Your task to perform on an android device: change timer sound Image 0: 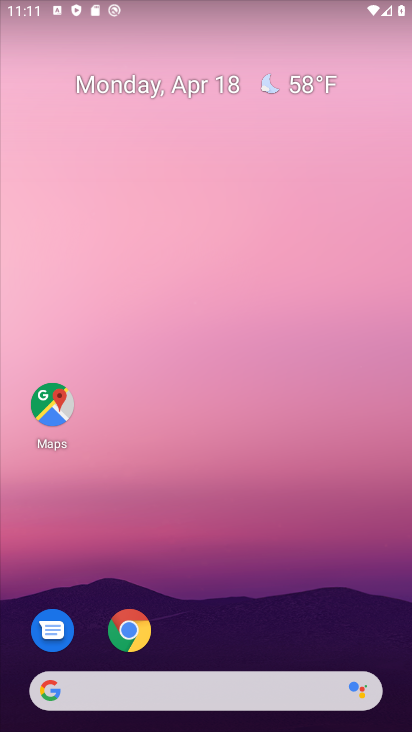
Step 0: click (285, 151)
Your task to perform on an android device: change timer sound Image 1: 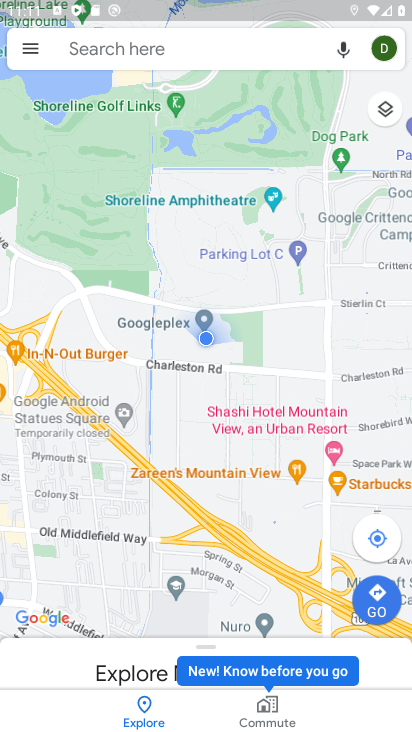
Step 1: press home button
Your task to perform on an android device: change timer sound Image 2: 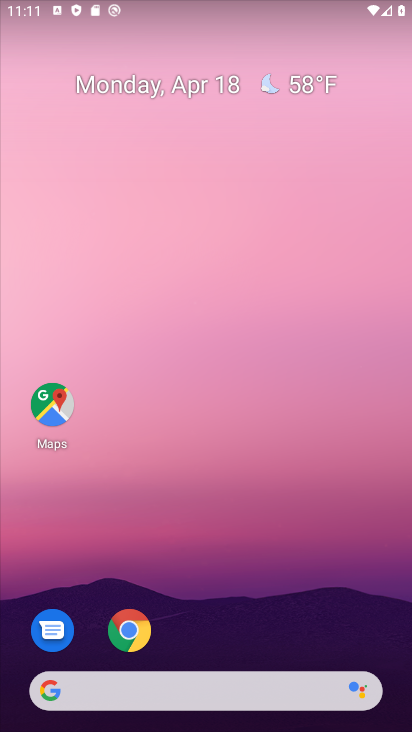
Step 2: drag from (272, 635) to (272, 252)
Your task to perform on an android device: change timer sound Image 3: 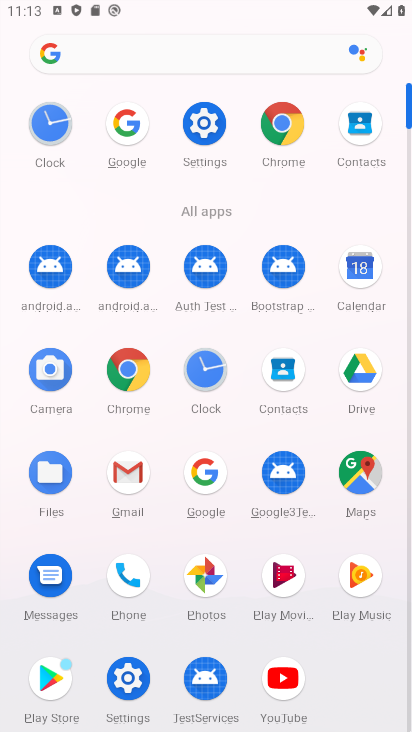
Step 3: click (203, 366)
Your task to perform on an android device: change timer sound Image 4: 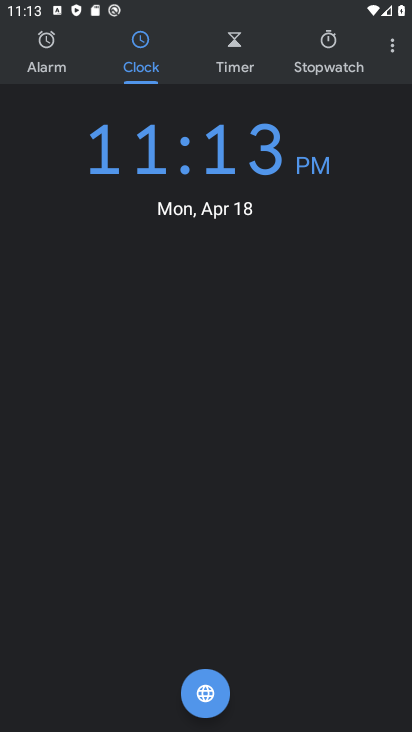
Step 4: click (385, 51)
Your task to perform on an android device: change timer sound Image 5: 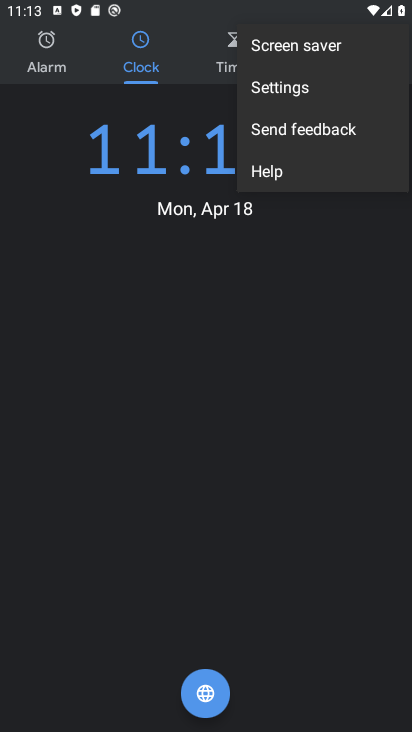
Step 5: click (309, 78)
Your task to perform on an android device: change timer sound Image 6: 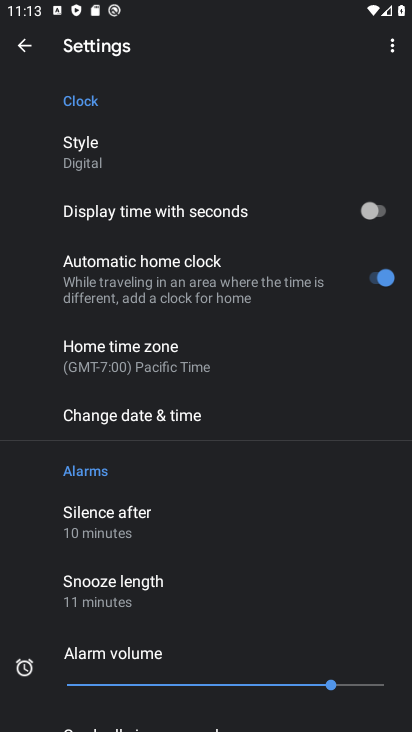
Step 6: drag from (190, 590) to (189, 218)
Your task to perform on an android device: change timer sound Image 7: 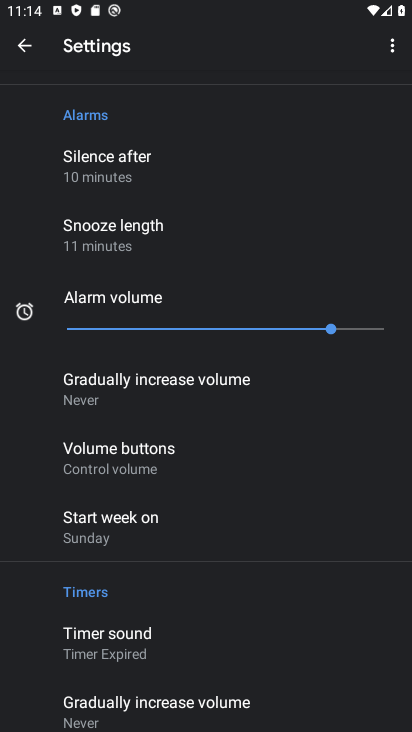
Step 7: click (202, 228)
Your task to perform on an android device: change timer sound Image 8: 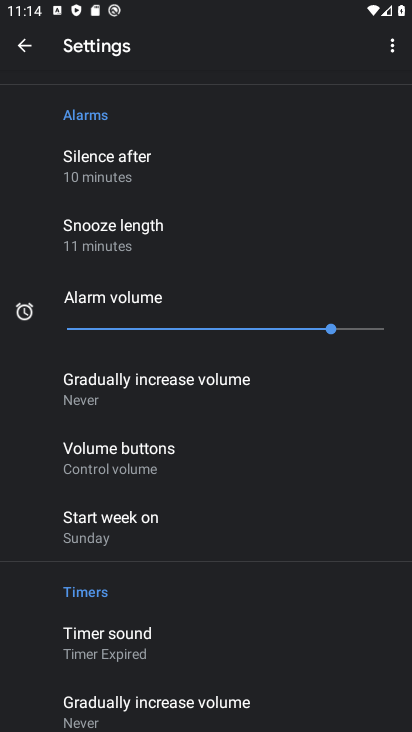
Step 8: click (146, 646)
Your task to perform on an android device: change timer sound Image 9: 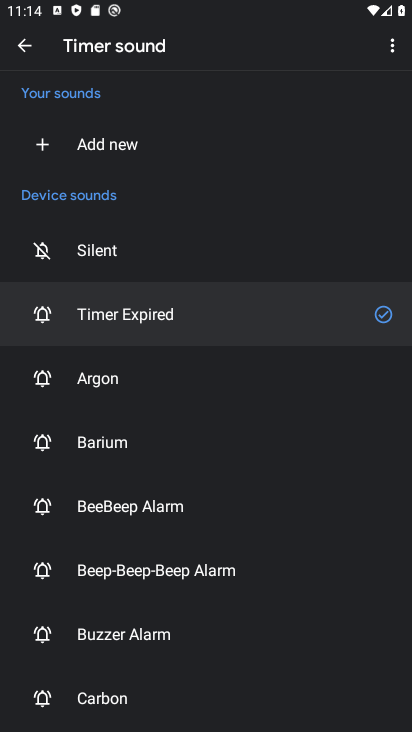
Step 9: click (94, 383)
Your task to perform on an android device: change timer sound Image 10: 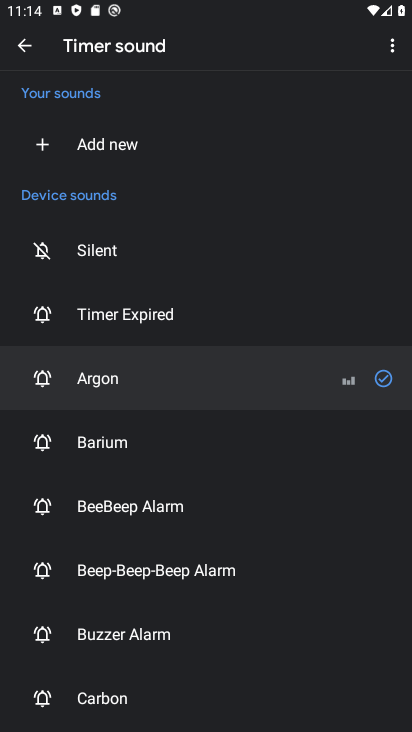
Step 10: task complete